Your task to perform on an android device: open device folders in google photos Image 0: 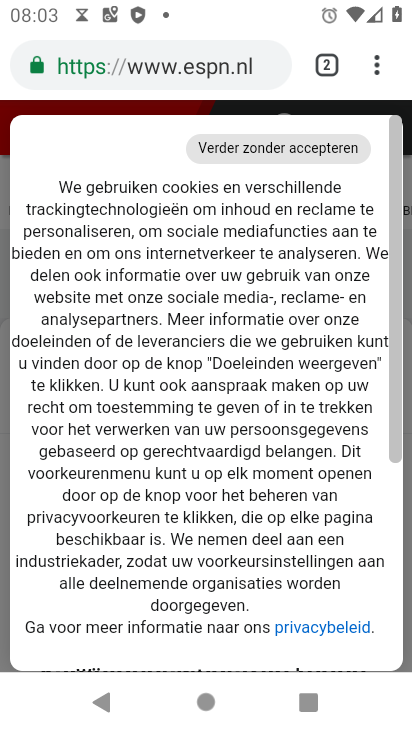
Step 0: press home button
Your task to perform on an android device: open device folders in google photos Image 1: 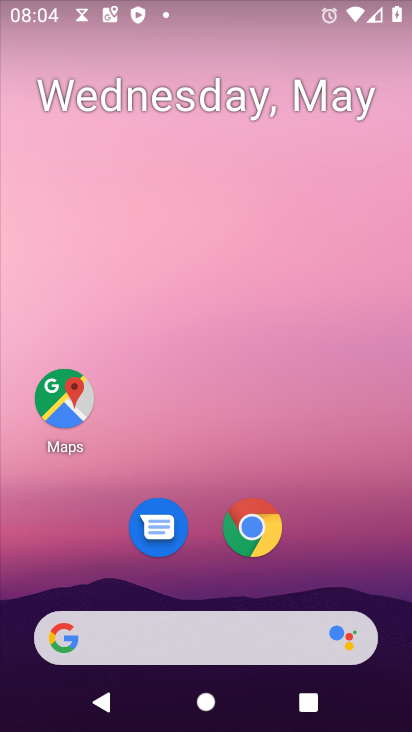
Step 1: drag from (297, 559) to (317, 99)
Your task to perform on an android device: open device folders in google photos Image 2: 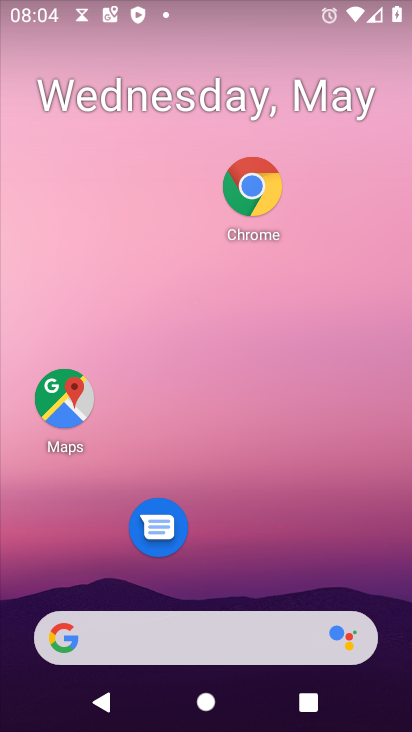
Step 2: drag from (327, 570) to (378, 44)
Your task to perform on an android device: open device folders in google photos Image 3: 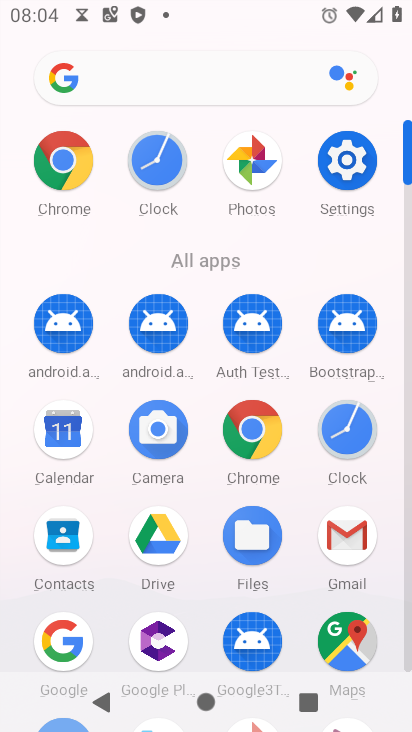
Step 3: click (252, 166)
Your task to perform on an android device: open device folders in google photos Image 4: 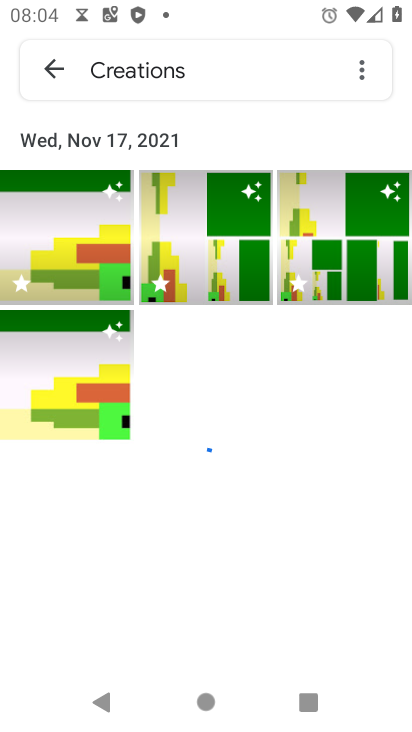
Step 4: click (56, 66)
Your task to perform on an android device: open device folders in google photos Image 5: 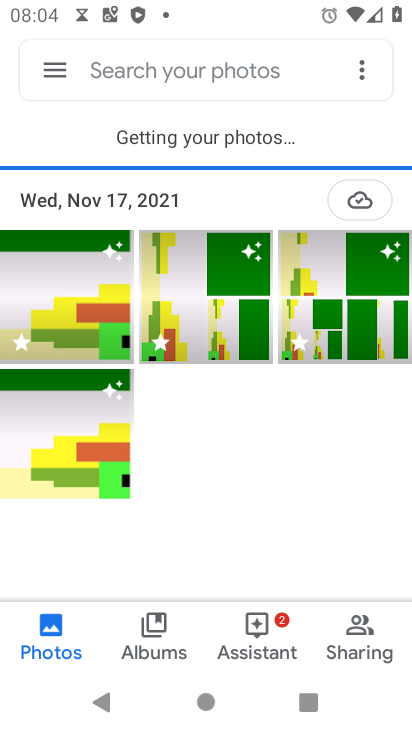
Step 5: click (51, 56)
Your task to perform on an android device: open device folders in google photos Image 6: 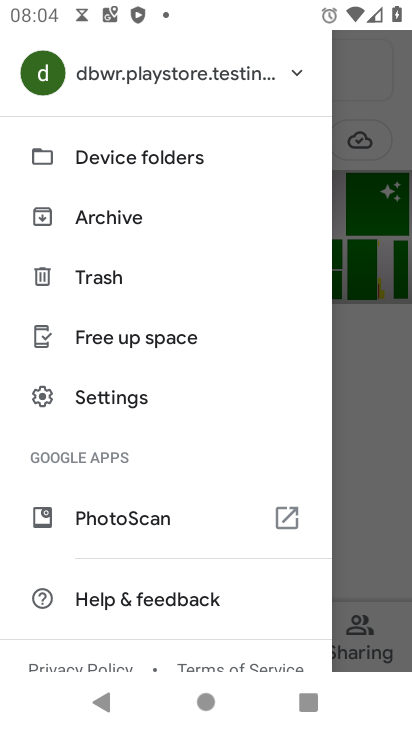
Step 6: click (193, 154)
Your task to perform on an android device: open device folders in google photos Image 7: 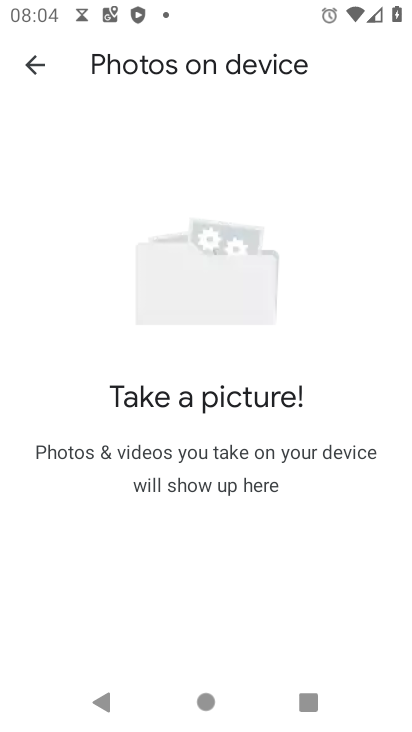
Step 7: task complete